Your task to perform on an android device: change text size in settings app Image 0: 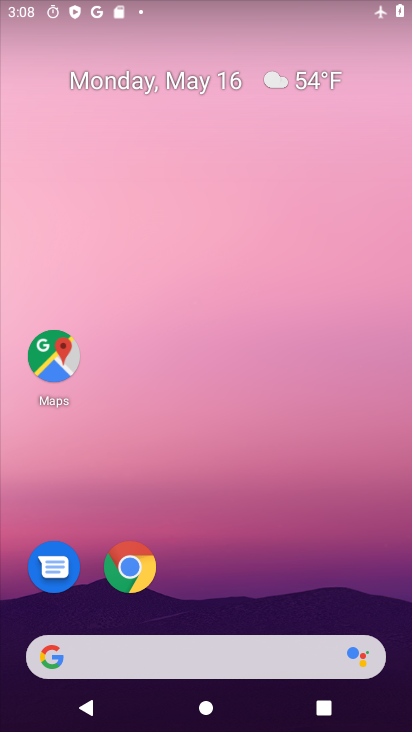
Step 0: drag from (245, 588) to (280, 116)
Your task to perform on an android device: change text size in settings app Image 1: 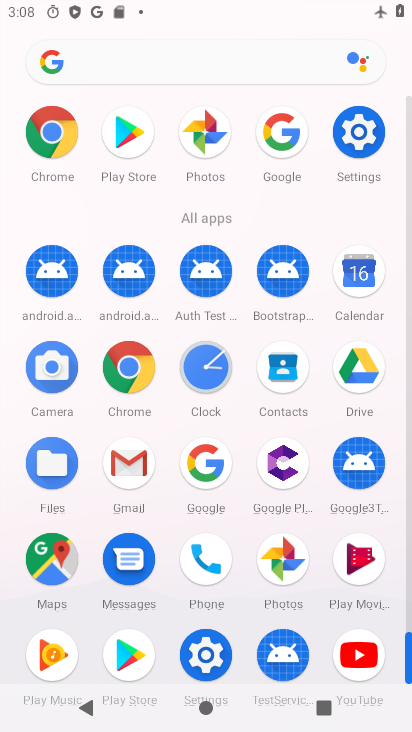
Step 1: click (358, 130)
Your task to perform on an android device: change text size in settings app Image 2: 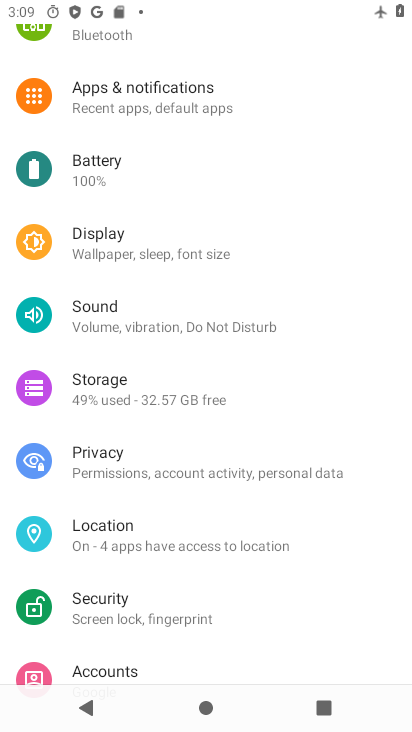
Step 2: drag from (161, 516) to (187, 409)
Your task to perform on an android device: change text size in settings app Image 3: 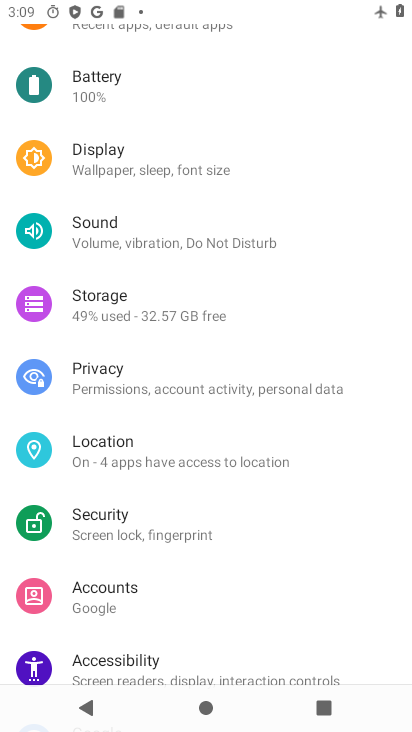
Step 3: drag from (159, 572) to (204, 454)
Your task to perform on an android device: change text size in settings app Image 4: 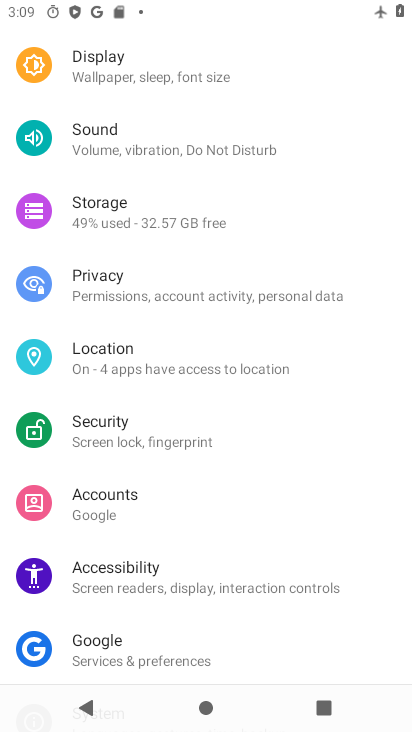
Step 4: click (171, 573)
Your task to perform on an android device: change text size in settings app Image 5: 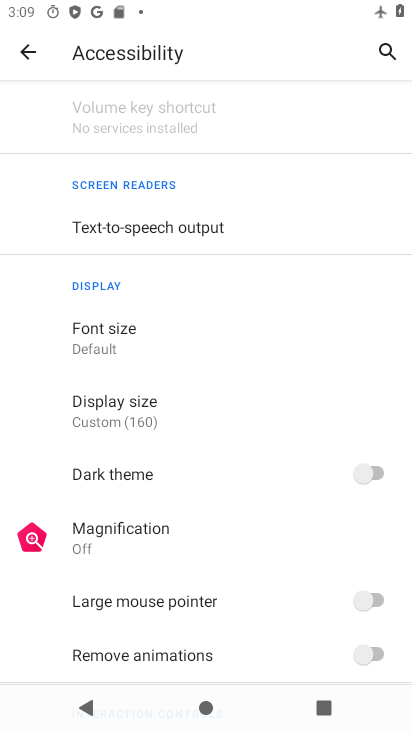
Step 5: click (129, 333)
Your task to perform on an android device: change text size in settings app Image 6: 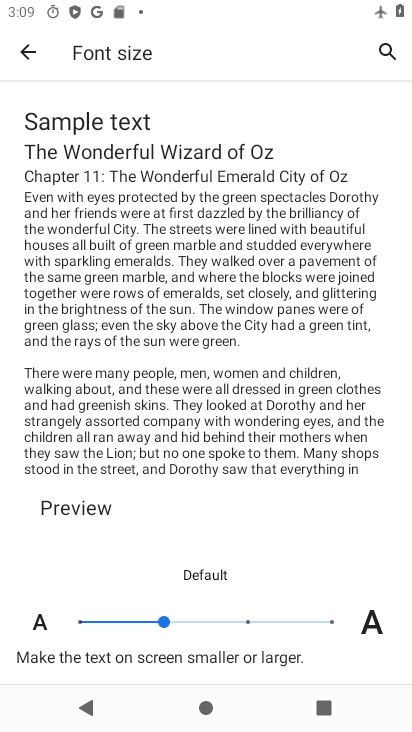
Step 6: click (78, 621)
Your task to perform on an android device: change text size in settings app Image 7: 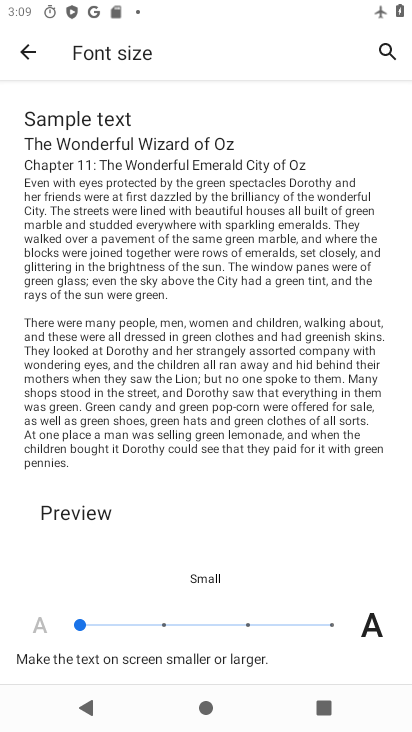
Step 7: task complete